Your task to perform on an android device: Open Chrome and go to settings Image 0: 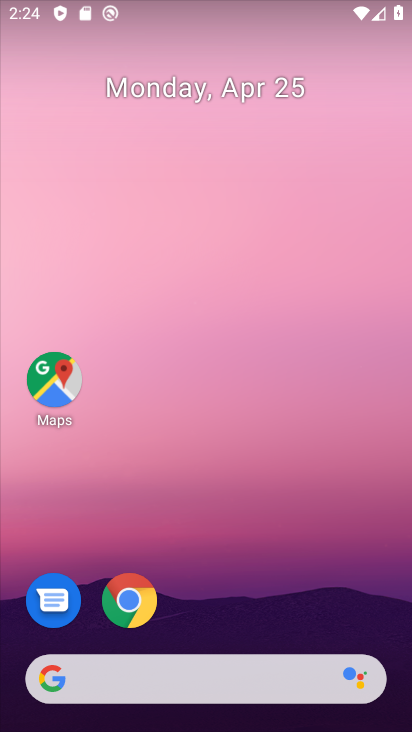
Step 0: drag from (391, 586) to (385, 81)
Your task to perform on an android device: Open Chrome and go to settings Image 1: 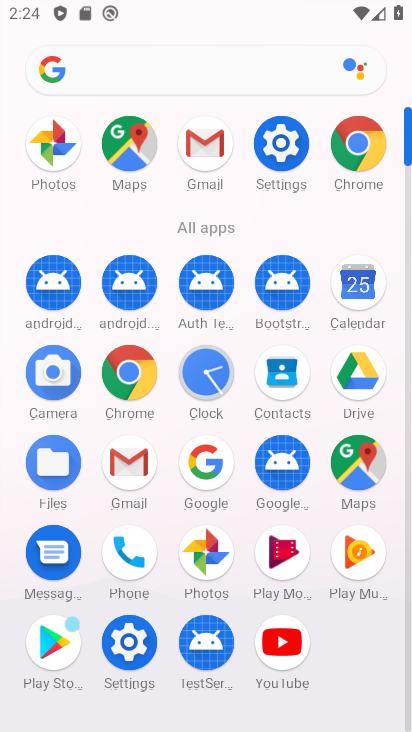
Step 1: click (150, 364)
Your task to perform on an android device: Open Chrome and go to settings Image 2: 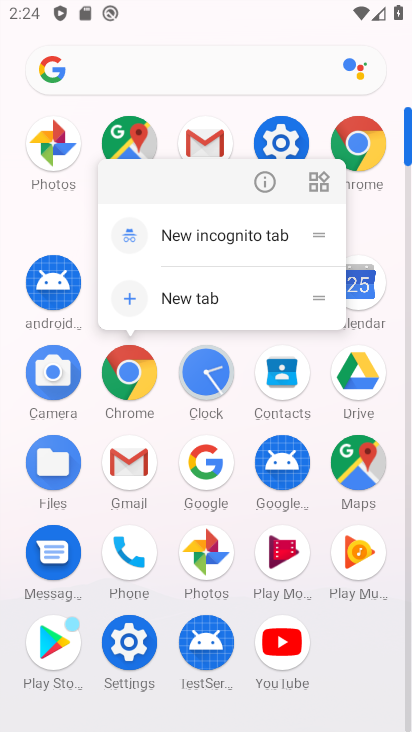
Step 2: click (149, 373)
Your task to perform on an android device: Open Chrome and go to settings Image 3: 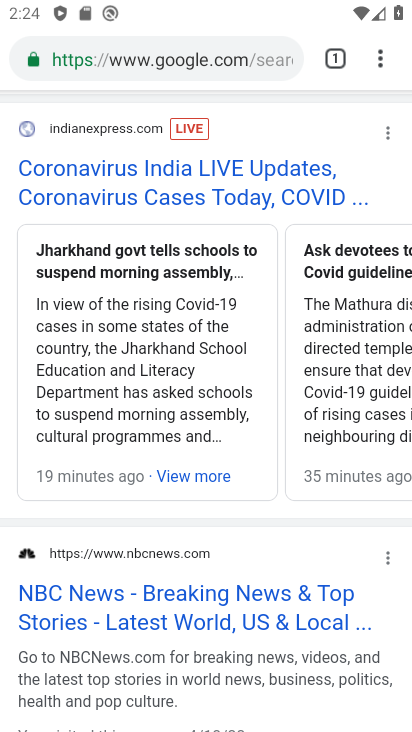
Step 3: task complete